Your task to perform on an android device: Open privacy settings Image 0: 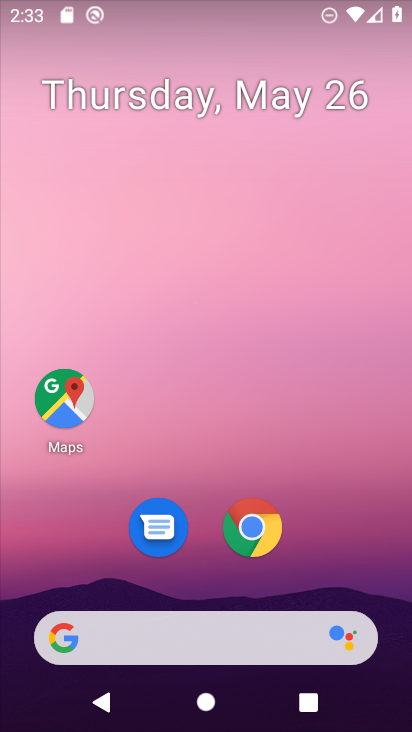
Step 0: drag from (193, 540) to (243, 68)
Your task to perform on an android device: Open privacy settings Image 1: 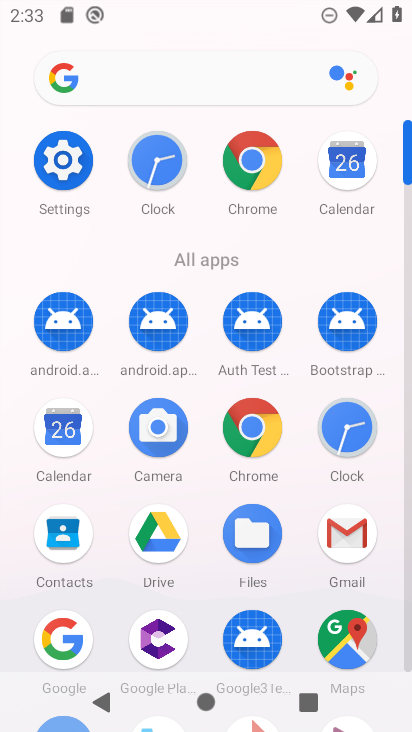
Step 1: click (65, 153)
Your task to perform on an android device: Open privacy settings Image 2: 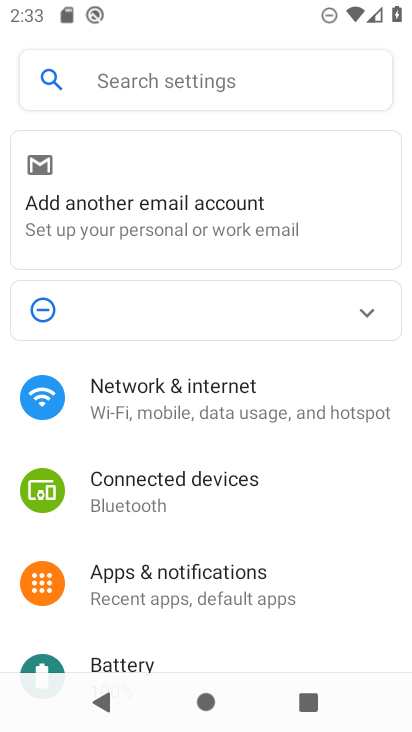
Step 2: drag from (193, 608) to (273, 137)
Your task to perform on an android device: Open privacy settings Image 3: 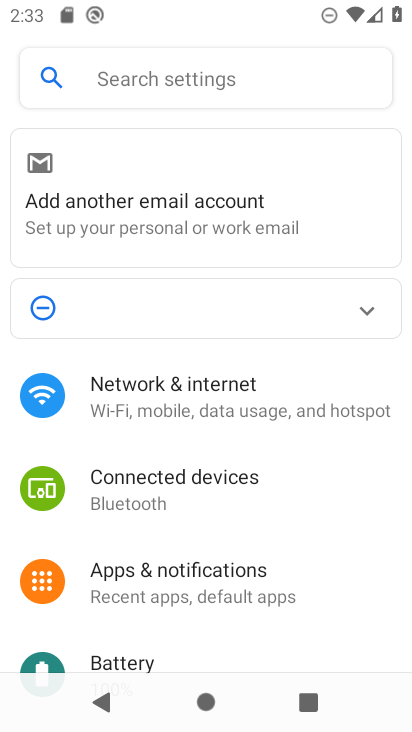
Step 3: drag from (150, 622) to (214, 144)
Your task to perform on an android device: Open privacy settings Image 4: 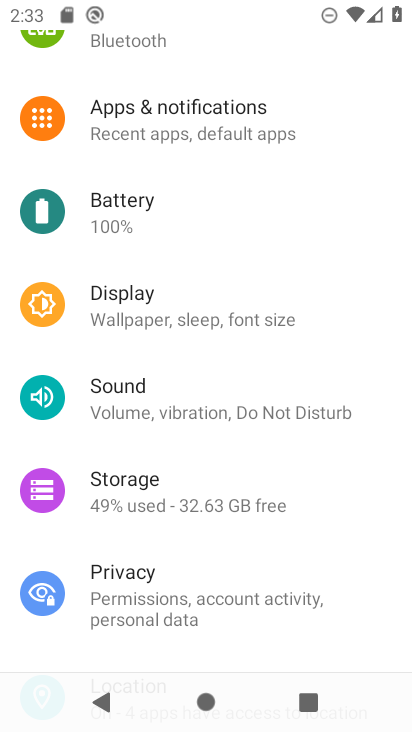
Step 4: click (165, 597)
Your task to perform on an android device: Open privacy settings Image 5: 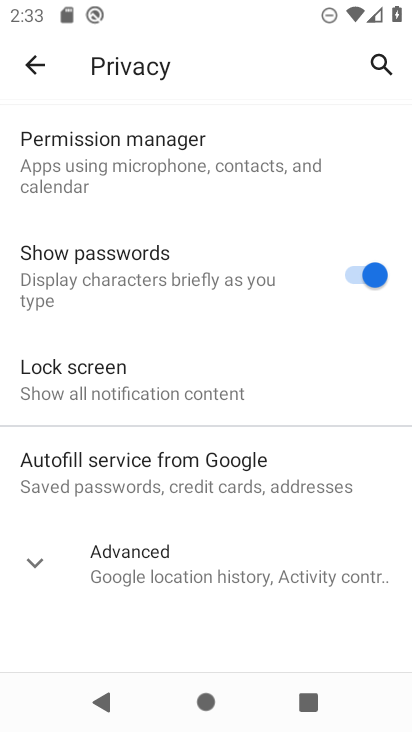
Step 5: task complete